Your task to perform on an android device: turn on the 12-hour format for clock Image 0: 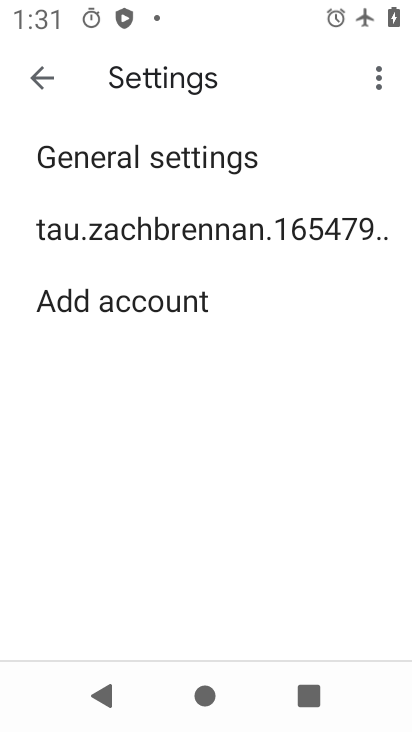
Step 0: press home button
Your task to perform on an android device: turn on the 12-hour format for clock Image 1: 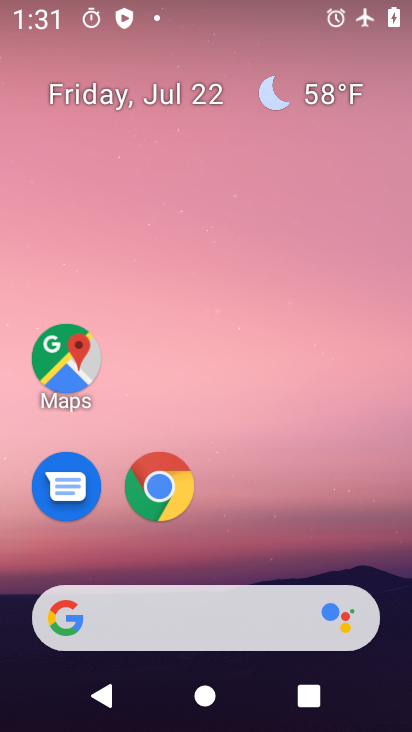
Step 1: drag from (359, 530) to (358, 58)
Your task to perform on an android device: turn on the 12-hour format for clock Image 2: 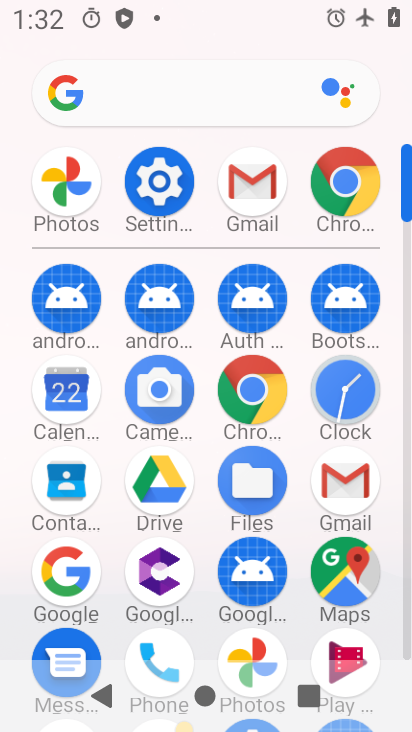
Step 2: click (372, 402)
Your task to perform on an android device: turn on the 12-hour format for clock Image 3: 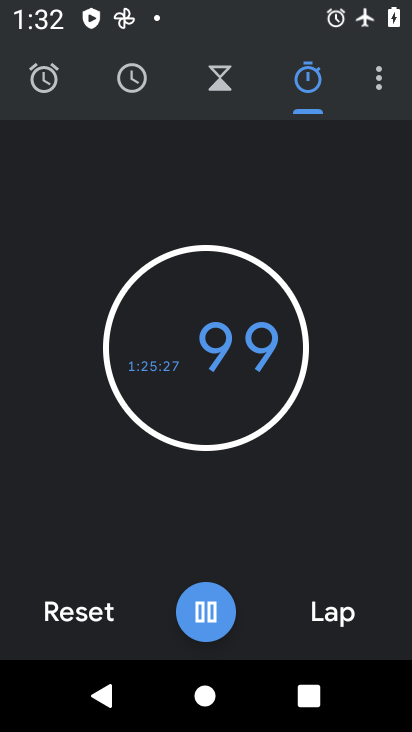
Step 3: click (375, 90)
Your task to perform on an android device: turn on the 12-hour format for clock Image 4: 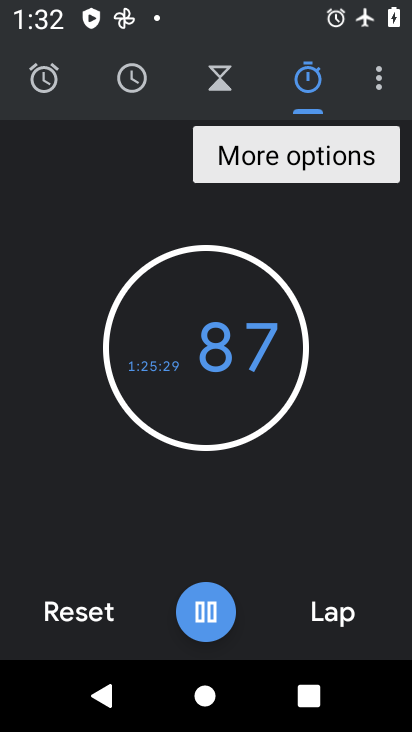
Step 4: click (375, 90)
Your task to perform on an android device: turn on the 12-hour format for clock Image 5: 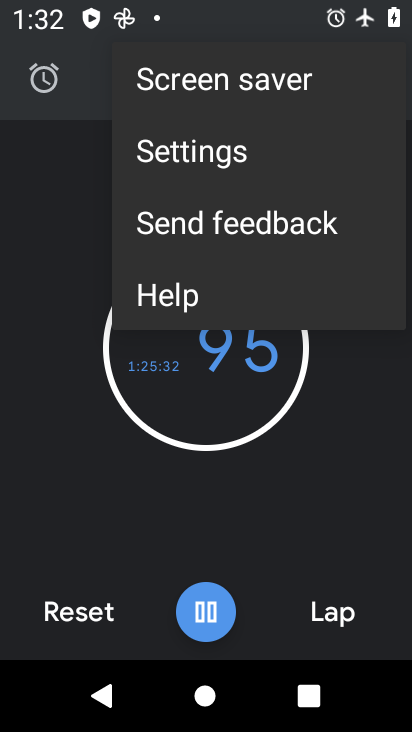
Step 5: click (333, 148)
Your task to perform on an android device: turn on the 12-hour format for clock Image 6: 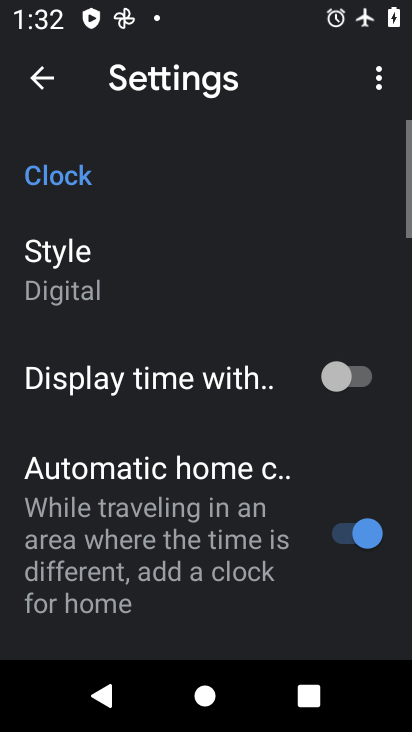
Step 6: drag from (258, 336) to (259, 243)
Your task to perform on an android device: turn on the 12-hour format for clock Image 7: 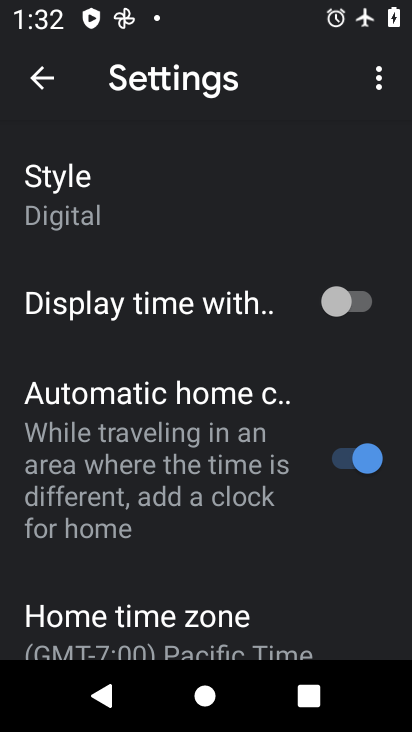
Step 7: drag from (259, 413) to (258, 302)
Your task to perform on an android device: turn on the 12-hour format for clock Image 8: 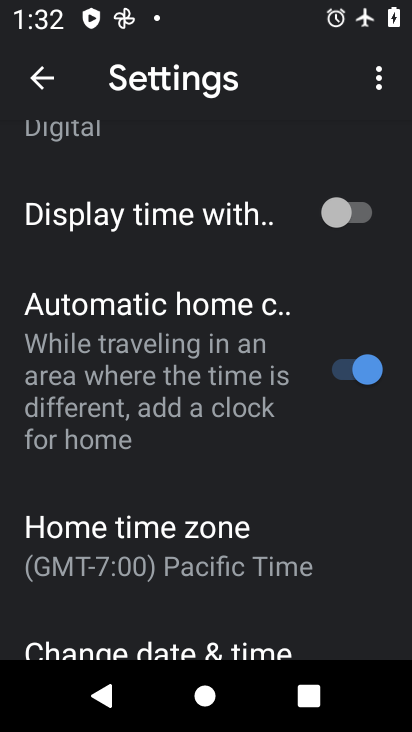
Step 8: drag from (268, 436) to (281, 348)
Your task to perform on an android device: turn on the 12-hour format for clock Image 9: 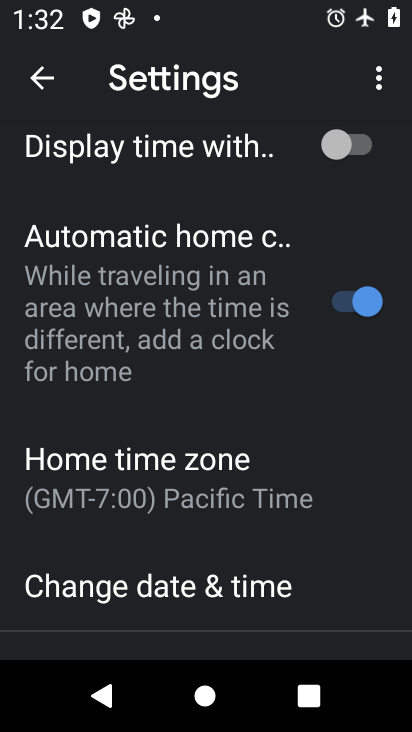
Step 9: drag from (296, 467) to (291, 382)
Your task to perform on an android device: turn on the 12-hour format for clock Image 10: 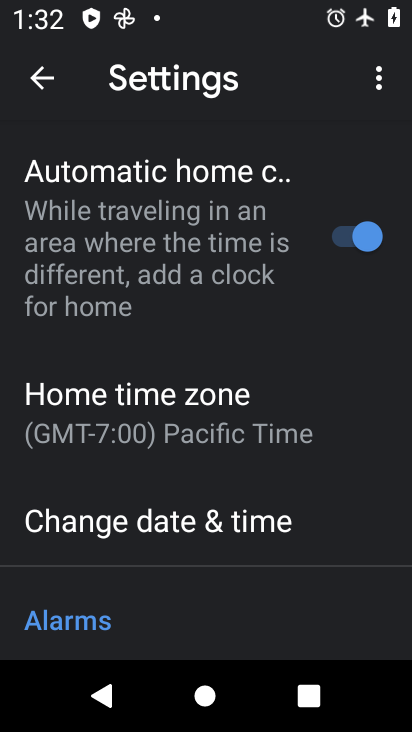
Step 10: drag from (291, 477) to (292, 359)
Your task to perform on an android device: turn on the 12-hour format for clock Image 11: 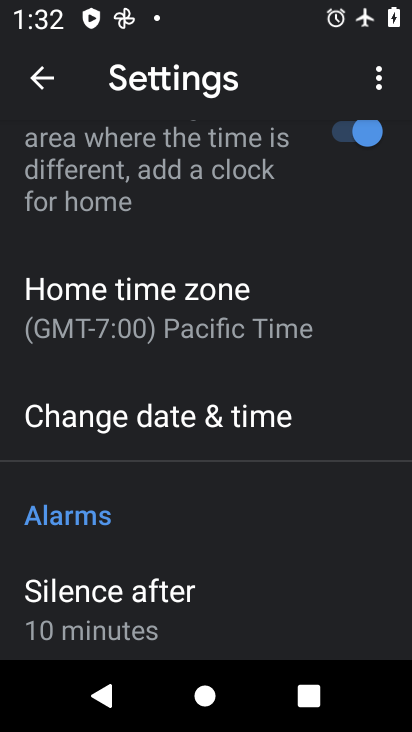
Step 11: drag from (296, 464) to (301, 351)
Your task to perform on an android device: turn on the 12-hour format for clock Image 12: 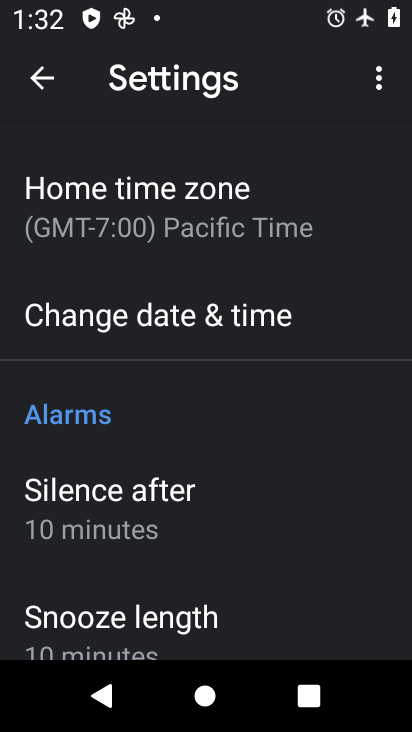
Step 12: click (301, 312)
Your task to perform on an android device: turn on the 12-hour format for clock Image 13: 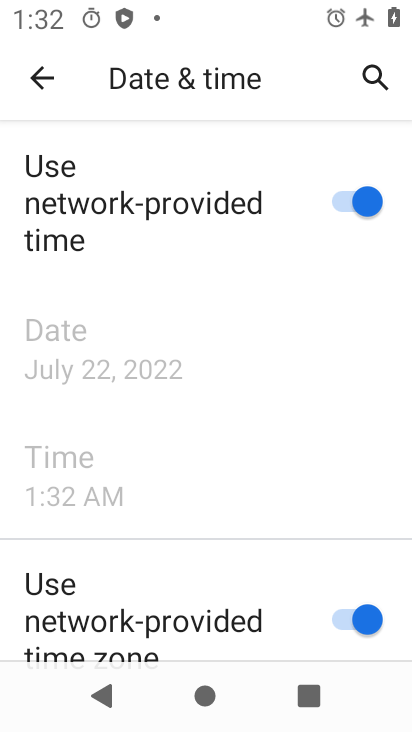
Step 13: task complete